Your task to perform on an android device: turn on the 12-hour format for clock Image 0: 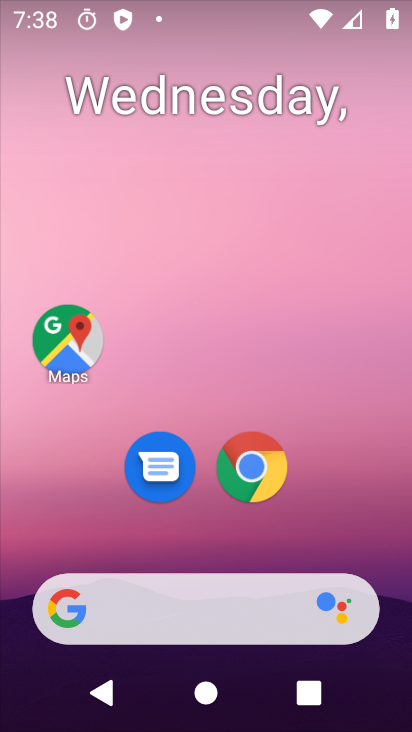
Step 0: drag from (361, 383) to (321, 67)
Your task to perform on an android device: turn on the 12-hour format for clock Image 1: 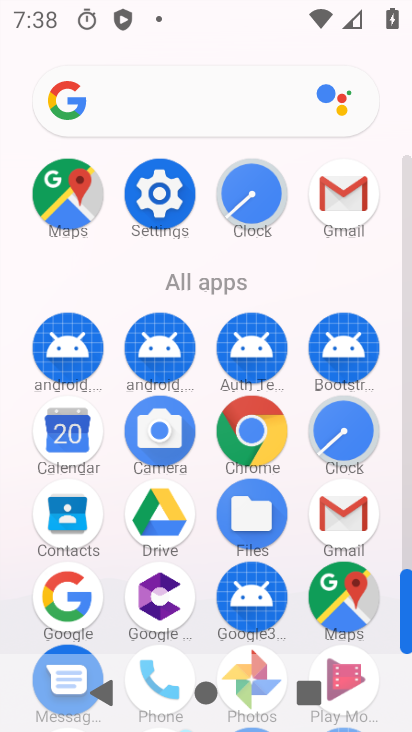
Step 1: click (345, 436)
Your task to perform on an android device: turn on the 12-hour format for clock Image 2: 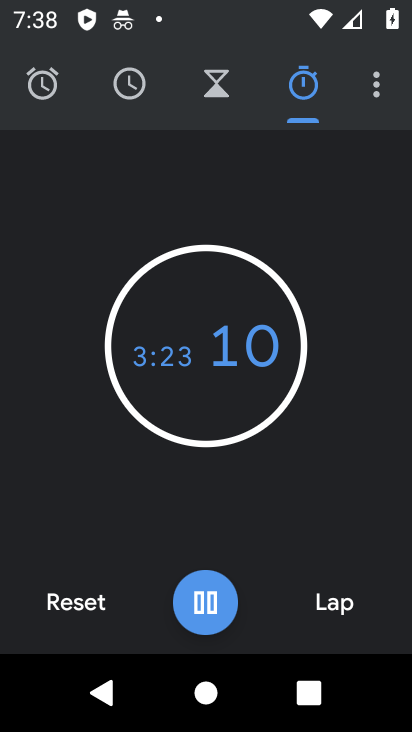
Step 2: click (117, 83)
Your task to perform on an android device: turn on the 12-hour format for clock Image 3: 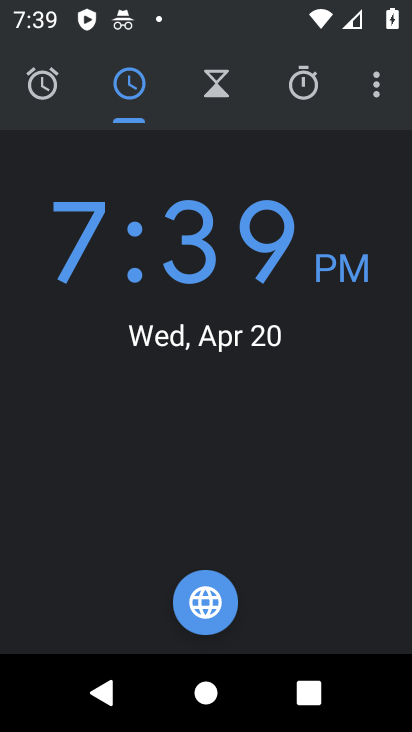
Step 3: click (380, 76)
Your task to perform on an android device: turn on the 12-hour format for clock Image 4: 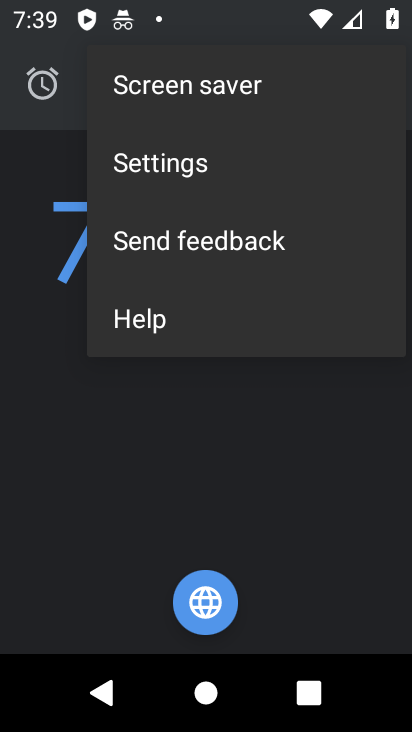
Step 4: click (164, 161)
Your task to perform on an android device: turn on the 12-hour format for clock Image 5: 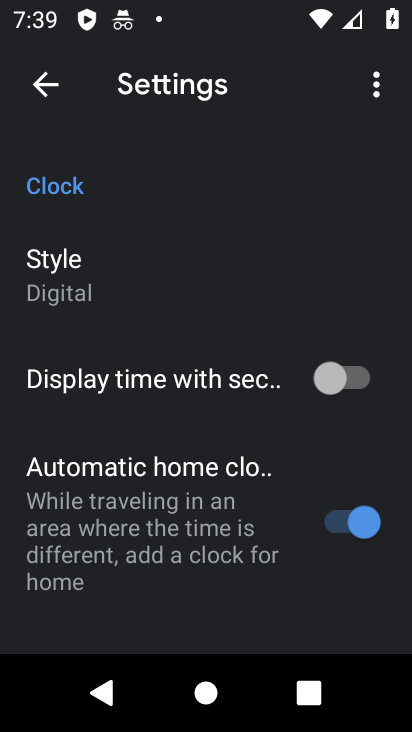
Step 5: drag from (211, 599) to (208, 227)
Your task to perform on an android device: turn on the 12-hour format for clock Image 6: 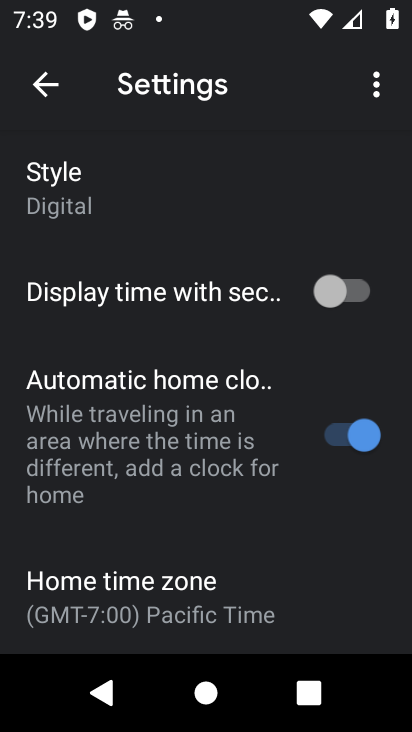
Step 6: drag from (242, 447) to (215, 231)
Your task to perform on an android device: turn on the 12-hour format for clock Image 7: 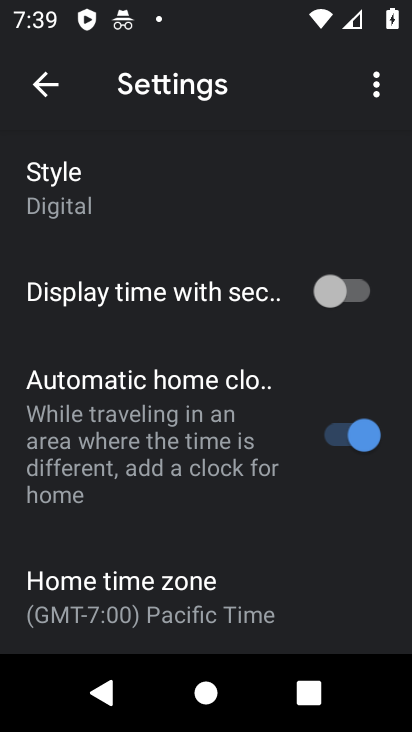
Step 7: drag from (271, 566) to (270, 137)
Your task to perform on an android device: turn on the 12-hour format for clock Image 8: 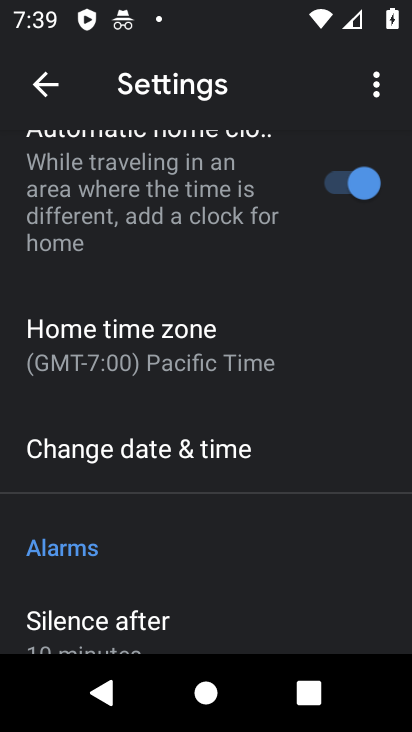
Step 8: drag from (257, 556) to (271, 221)
Your task to perform on an android device: turn on the 12-hour format for clock Image 9: 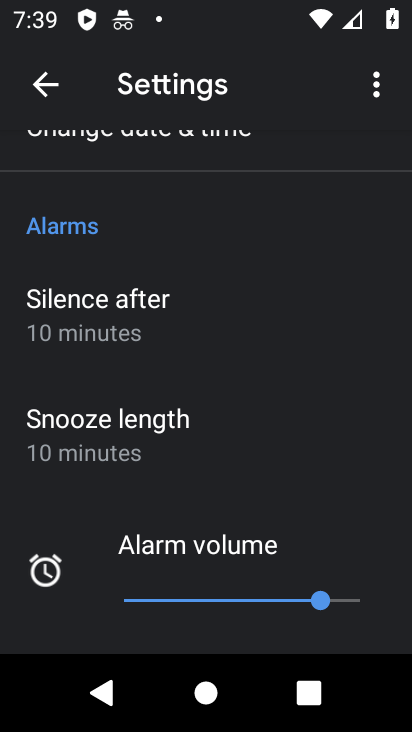
Step 9: drag from (283, 242) to (307, 501)
Your task to perform on an android device: turn on the 12-hour format for clock Image 10: 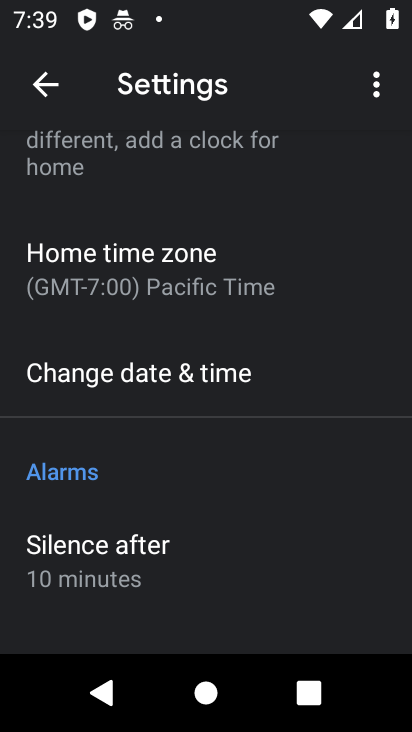
Step 10: click (148, 366)
Your task to perform on an android device: turn on the 12-hour format for clock Image 11: 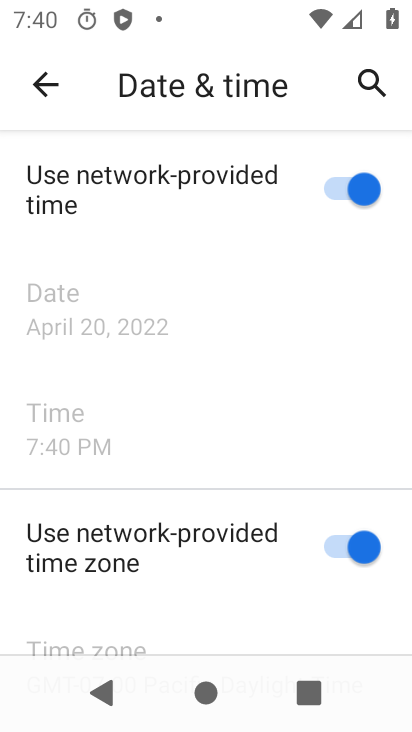
Step 11: drag from (209, 488) to (204, 268)
Your task to perform on an android device: turn on the 12-hour format for clock Image 12: 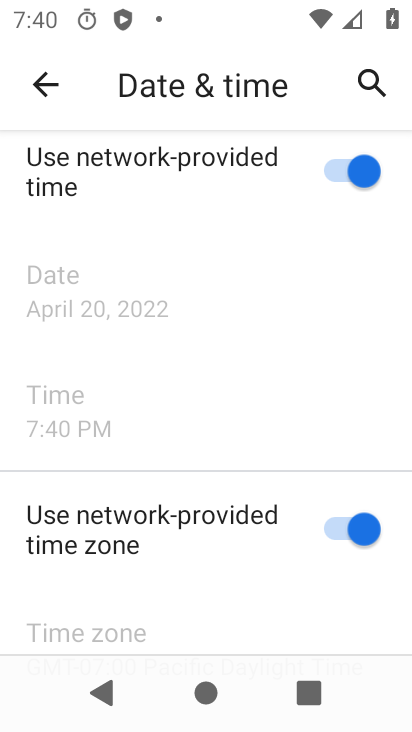
Step 12: drag from (226, 520) to (235, 277)
Your task to perform on an android device: turn on the 12-hour format for clock Image 13: 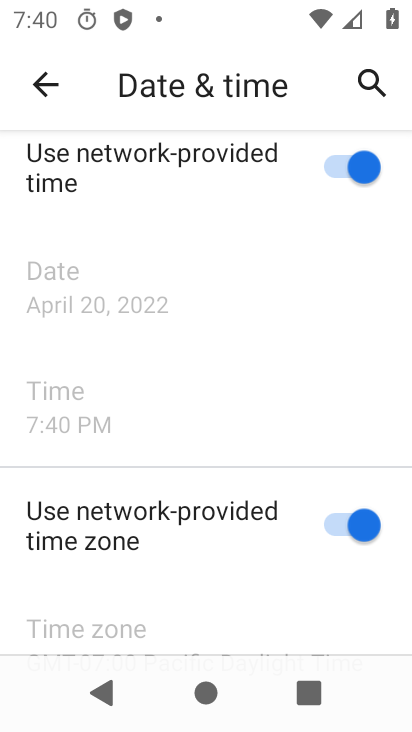
Step 13: drag from (269, 497) to (251, 337)
Your task to perform on an android device: turn on the 12-hour format for clock Image 14: 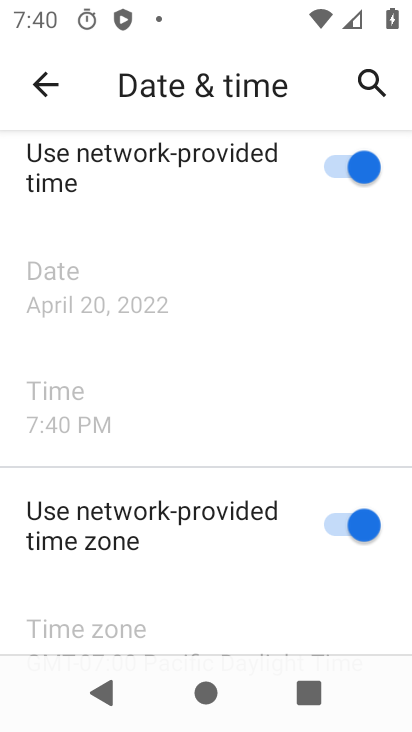
Step 14: drag from (256, 602) to (240, 285)
Your task to perform on an android device: turn on the 12-hour format for clock Image 15: 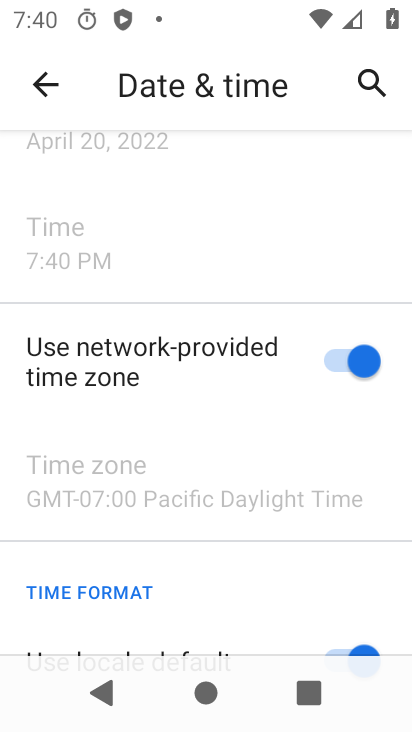
Step 15: drag from (250, 606) to (216, 287)
Your task to perform on an android device: turn on the 12-hour format for clock Image 16: 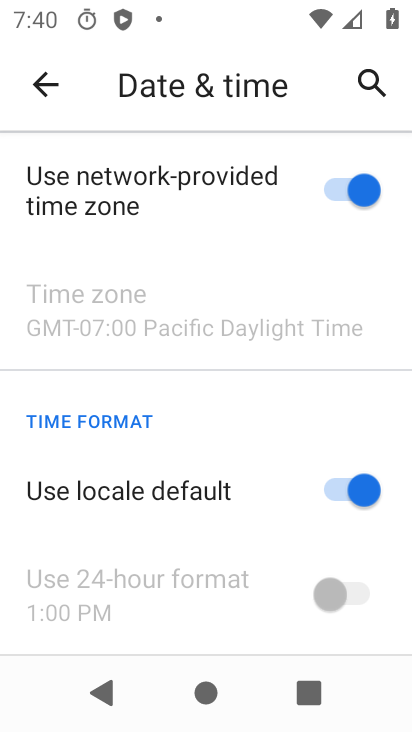
Step 16: click (330, 492)
Your task to perform on an android device: turn on the 12-hour format for clock Image 17: 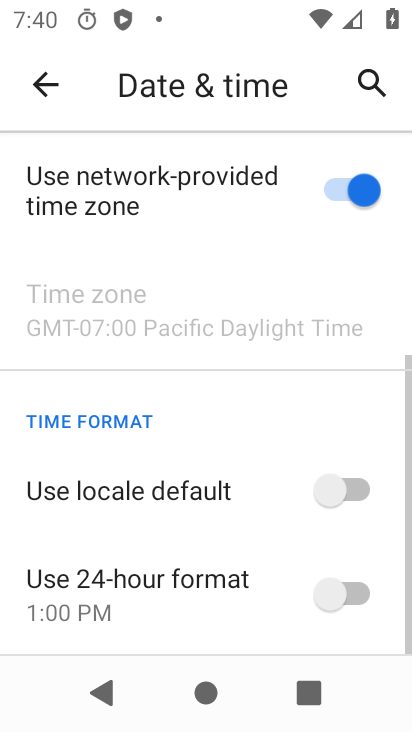
Step 17: click (347, 487)
Your task to perform on an android device: turn on the 12-hour format for clock Image 18: 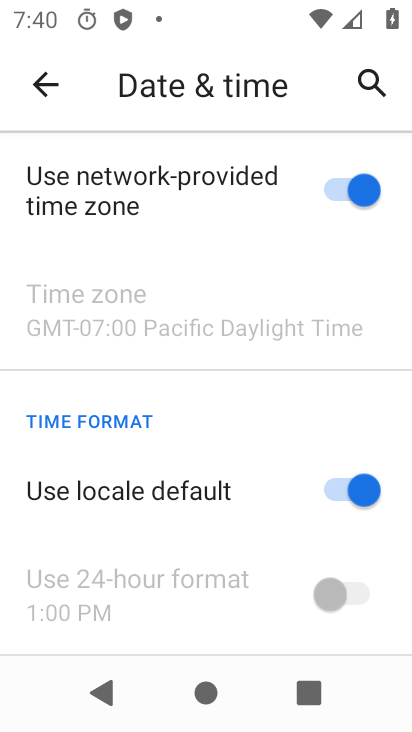
Step 18: task complete